Your task to perform on an android device: Do I have any events this weekend? Image 0: 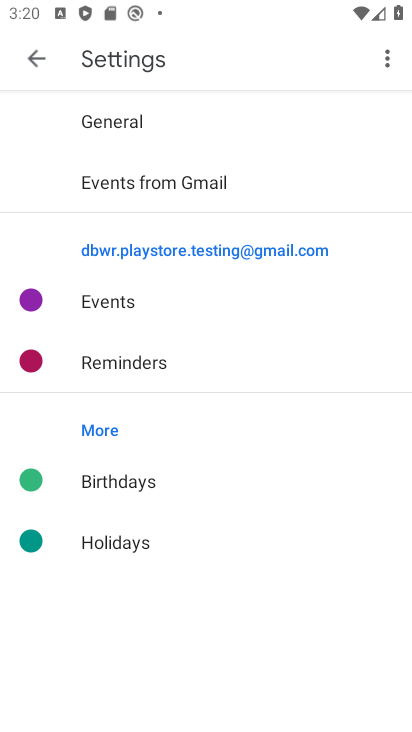
Step 0: press home button
Your task to perform on an android device: Do I have any events this weekend? Image 1: 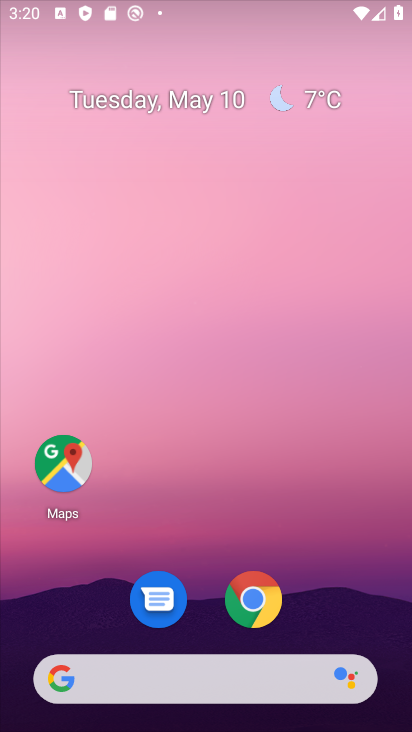
Step 1: drag from (293, 628) to (247, 19)
Your task to perform on an android device: Do I have any events this weekend? Image 2: 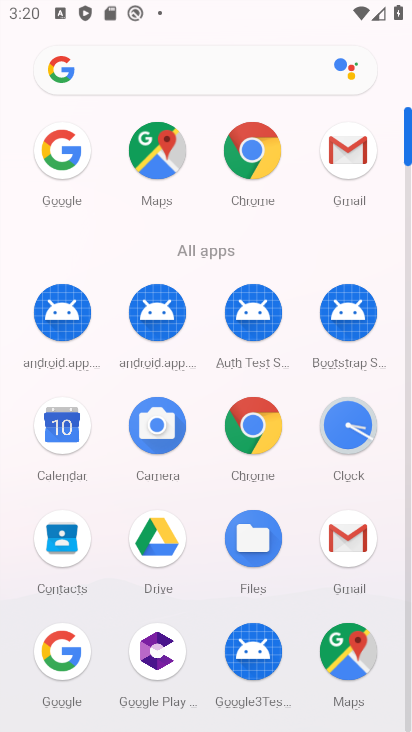
Step 2: click (69, 424)
Your task to perform on an android device: Do I have any events this weekend? Image 3: 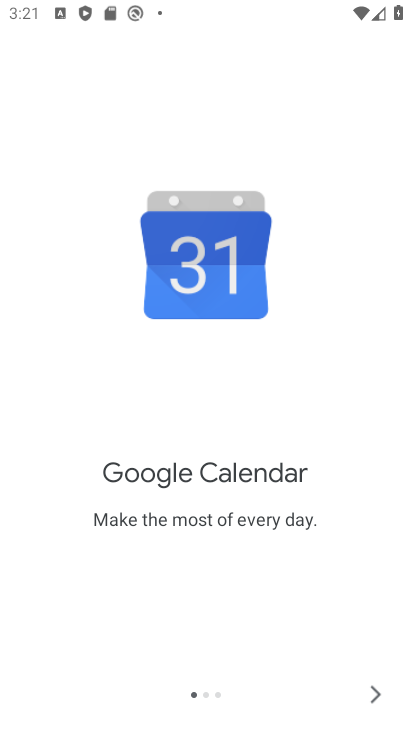
Step 3: click (367, 689)
Your task to perform on an android device: Do I have any events this weekend? Image 4: 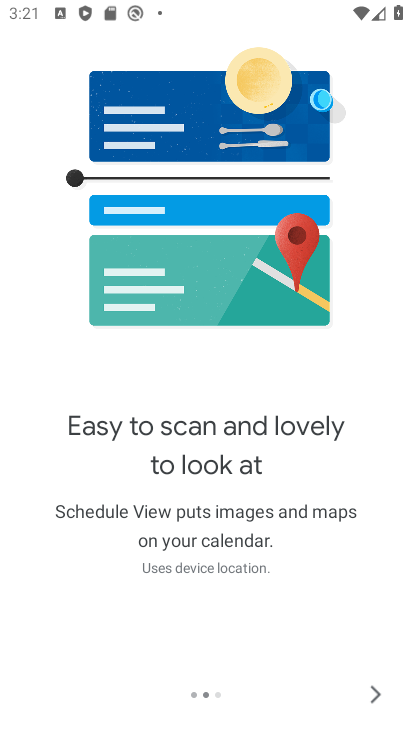
Step 4: click (367, 689)
Your task to perform on an android device: Do I have any events this weekend? Image 5: 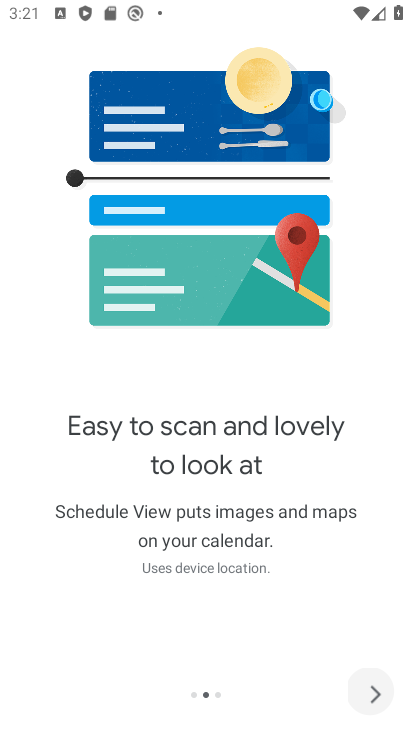
Step 5: click (367, 689)
Your task to perform on an android device: Do I have any events this weekend? Image 6: 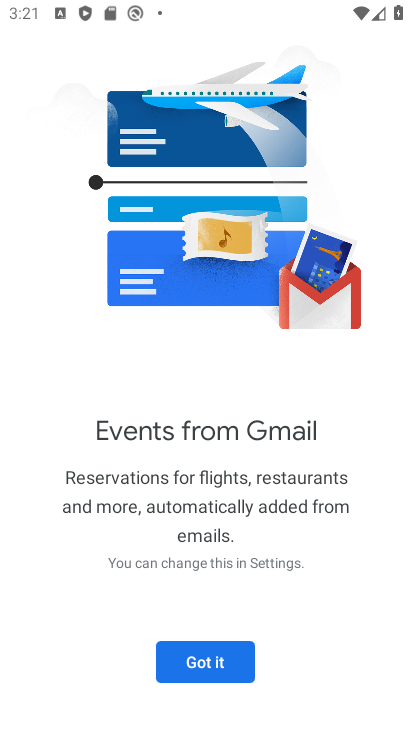
Step 6: click (367, 689)
Your task to perform on an android device: Do I have any events this weekend? Image 7: 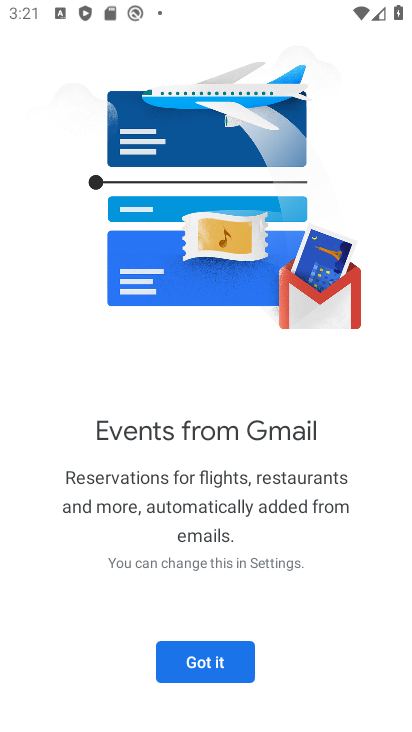
Step 7: click (220, 673)
Your task to perform on an android device: Do I have any events this weekend? Image 8: 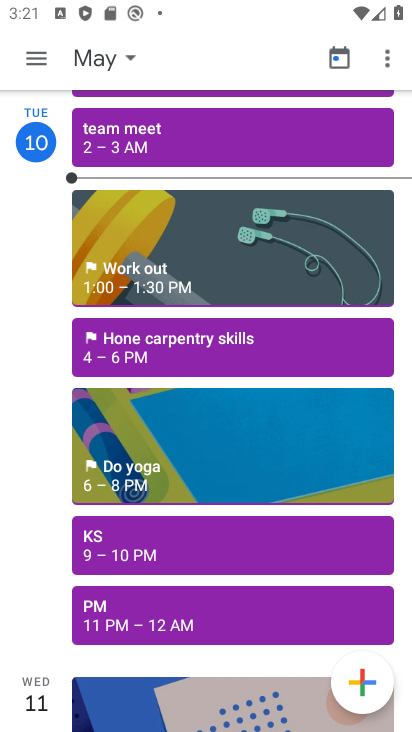
Step 8: task complete